Your task to perform on an android device: turn off sleep mode Image 0: 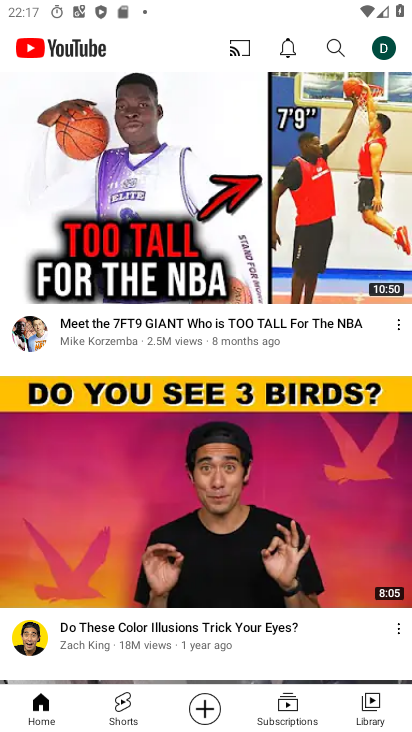
Step 0: press home button
Your task to perform on an android device: turn off sleep mode Image 1: 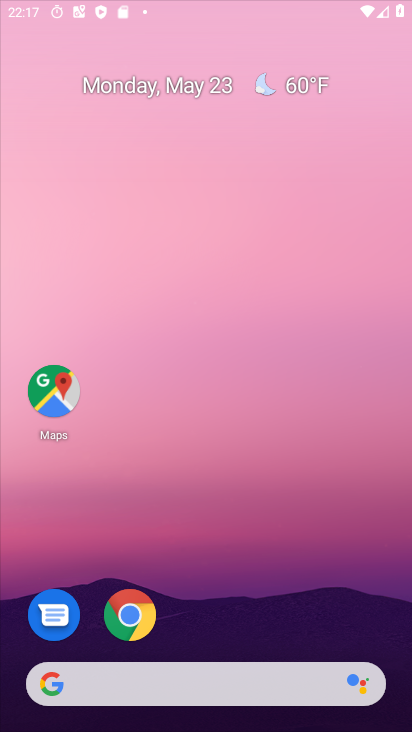
Step 1: press home button
Your task to perform on an android device: turn off sleep mode Image 2: 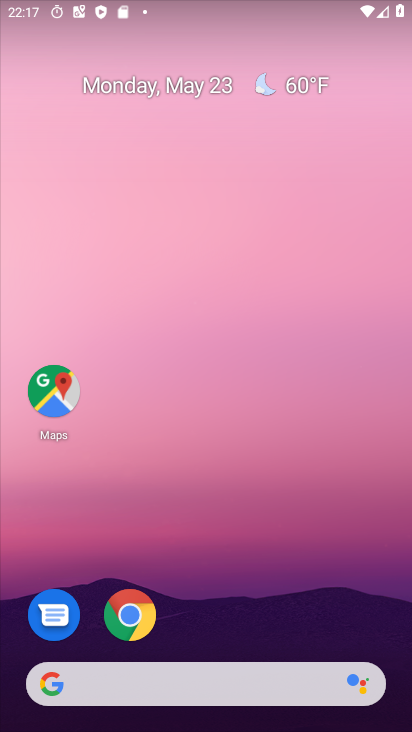
Step 2: drag from (220, 602) to (240, 75)
Your task to perform on an android device: turn off sleep mode Image 3: 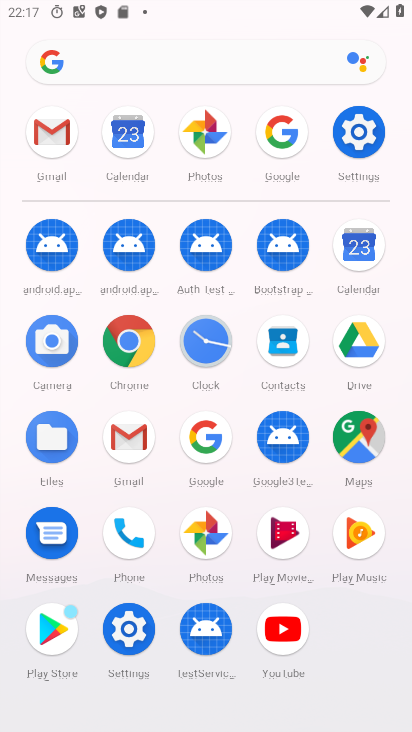
Step 3: click (356, 141)
Your task to perform on an android device: turn off sleep mode Image 4: 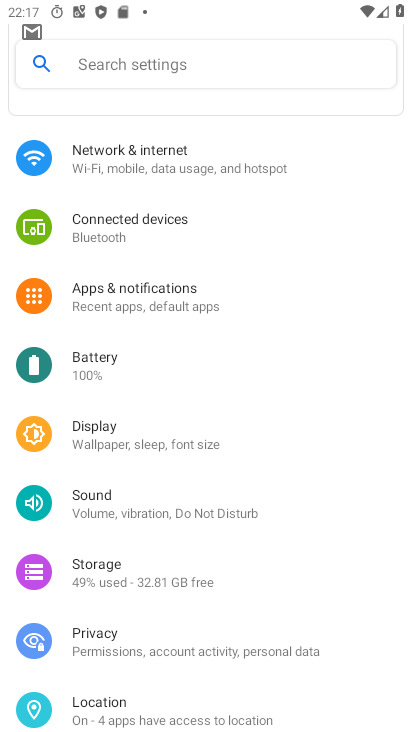
Step 4: click (128, 445)
Your task to perform on an android device: turn off sleep mode Image 5: 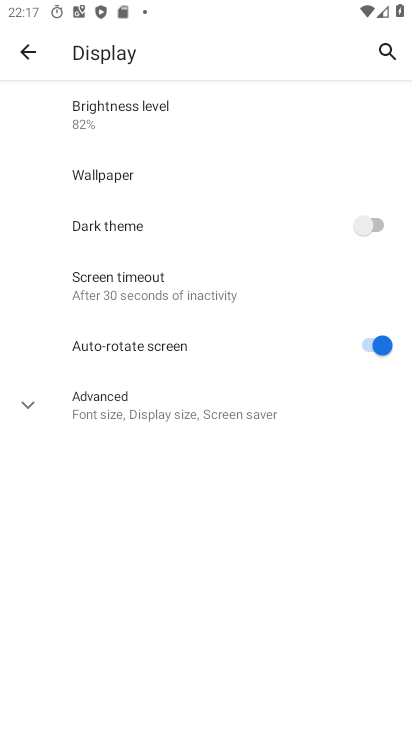
Step 5: click (108, 292)
Your task to perform on an android device: turn off sleep mode Image 6: 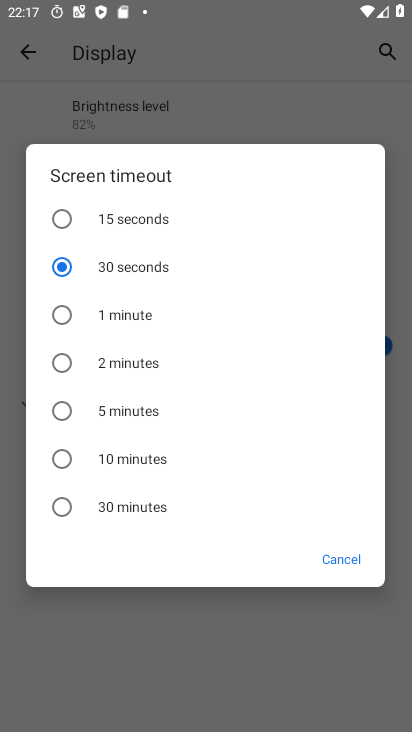
Step 6: task complete